Your task to perform on an android device: see creations saved in the google photos Image 0: 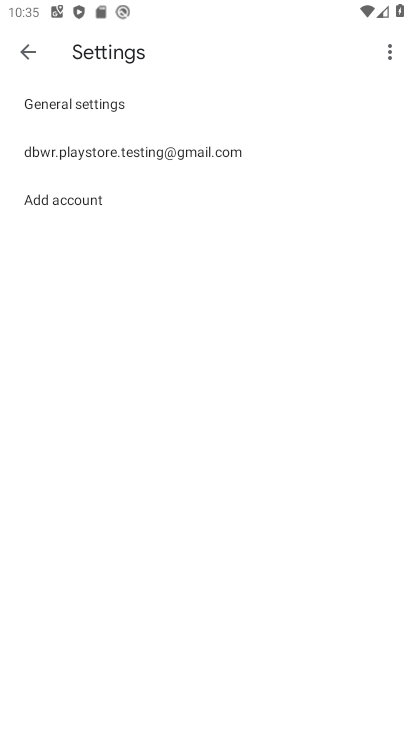
Step 0: press home button
Your task to perform on an android device: see creations saved in the google photos Image 1: 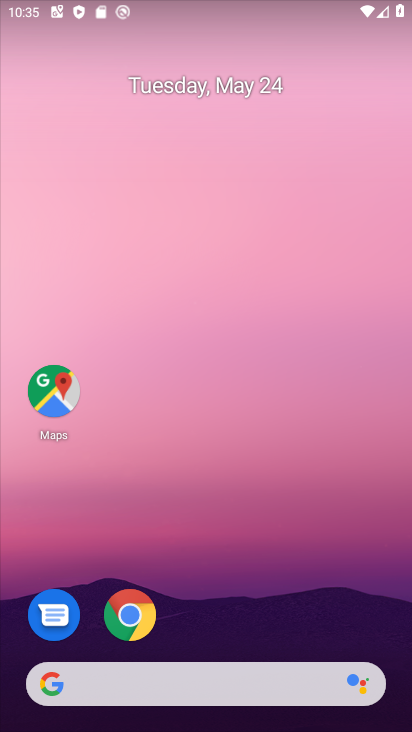
Step 1: drag from (210, 581) to (334, 144)
Your task to perform on an android device: see creations saved in the google photos Image 2: 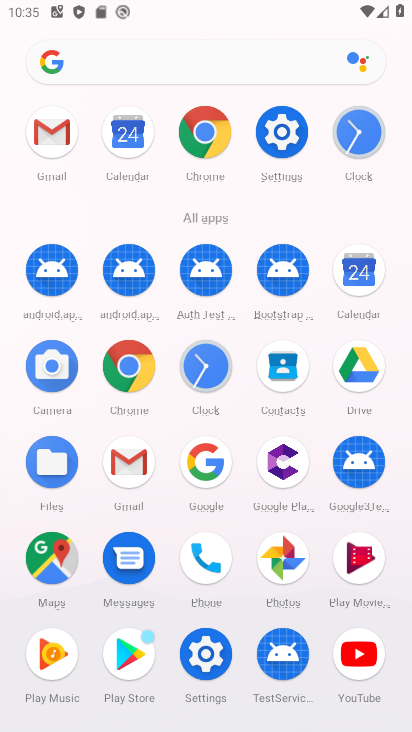
Step 2: click (281, 550)
Your task to perform on an android device: see creations saved in the google photos Image 3: 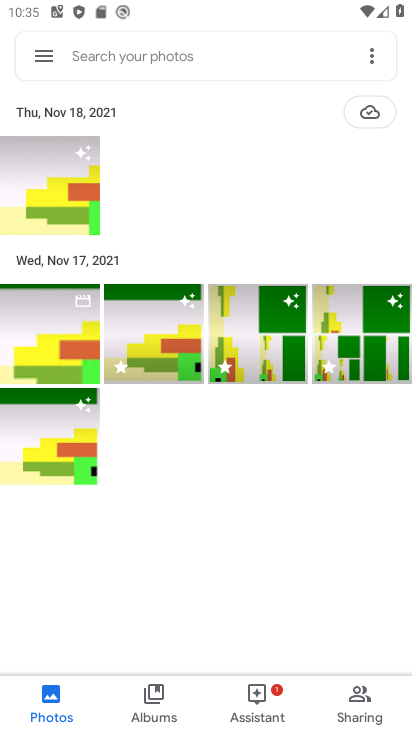
Step 3: task complete